Your task to perform on an android device: move an email to a new category in the gmail app Image 0: 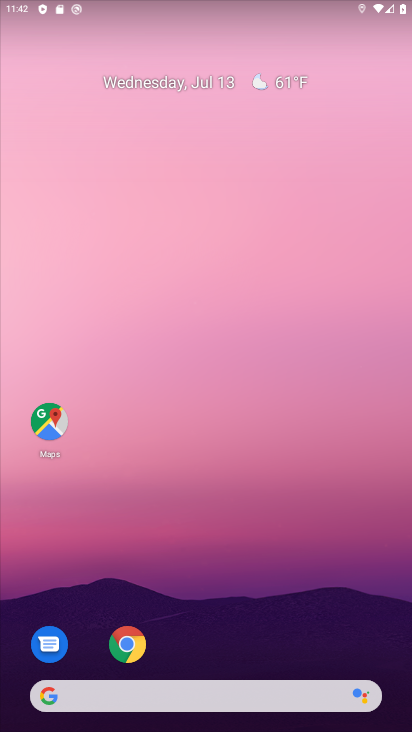
Step 0: drag from (240, 633) to (253, 87)
Your task to perform on an android device: move an email to a new category in the gmail app Image 1: 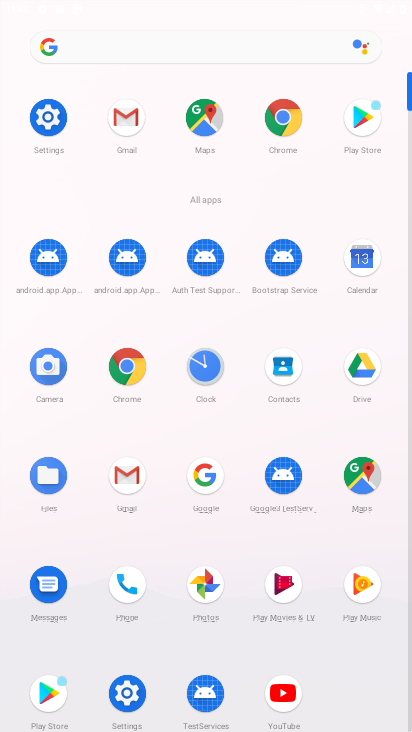
Step 1: click (131, 475)
Your task to perform on an android device: move an email to a new category in the gmail app Image 2: 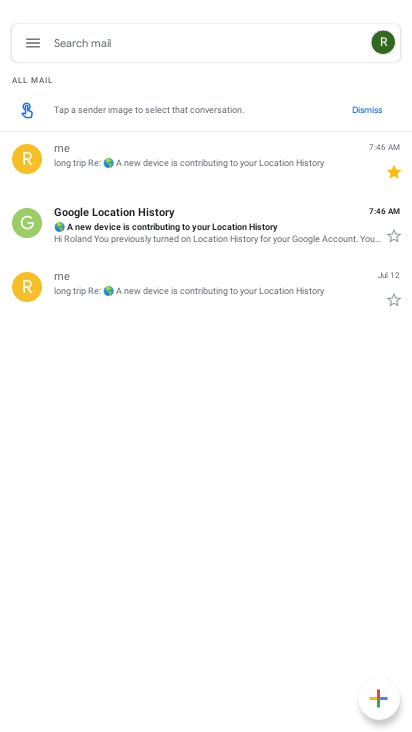
Step 2: click (167, 219)
Your task to perform on an android device: move an email to a new category in the gmail app Image 3: 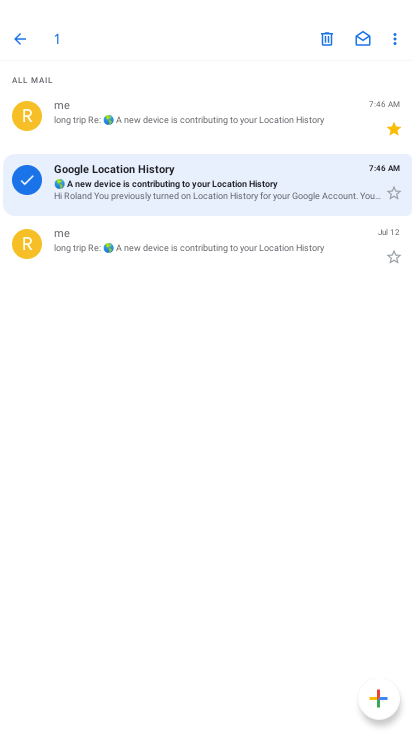
Step 3: click (396, 41)
Your task to perform on an android device: move an email to a new category in the gmail app Image 4: 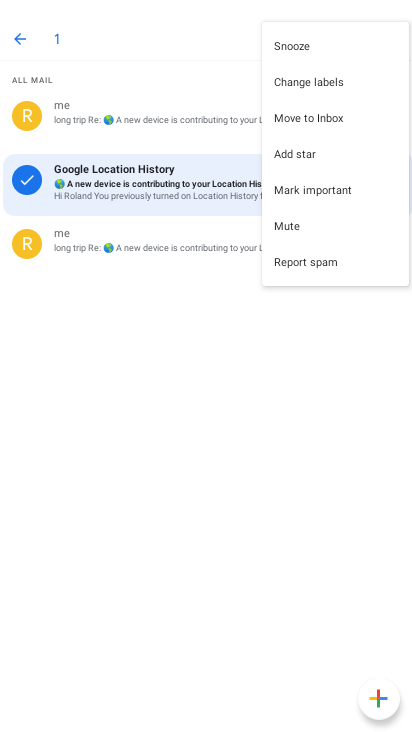
Step 4: click (309, 85)
Your task to perform on an android device: move an email to a new category in the gmail app Image 5: 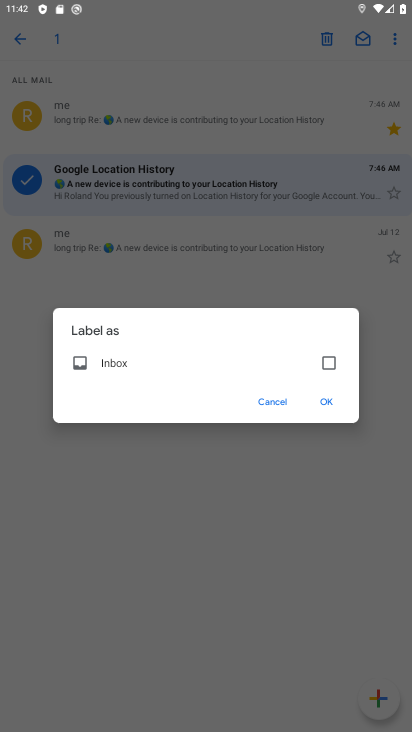
Step 5: click (326, 397)
Your task to perform on an android device: move an email to a new category in the gmail app Image 6: 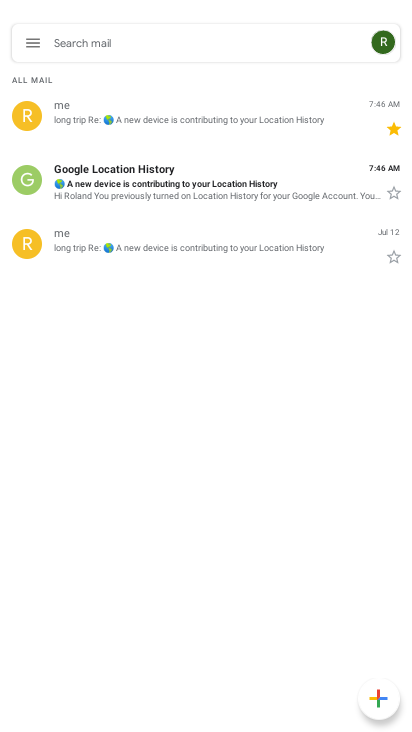
Step 6: task complete